Your task to perform on an android device: Open sound settings Image 0: 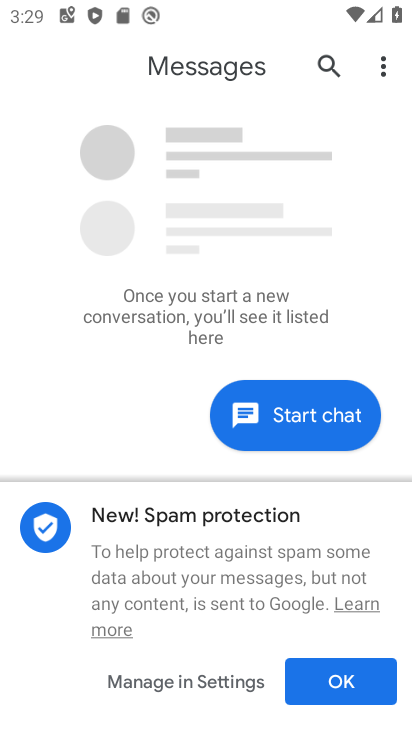
Step 0: press home button
Your task to perform on an android device: Open sound settings Image 1: 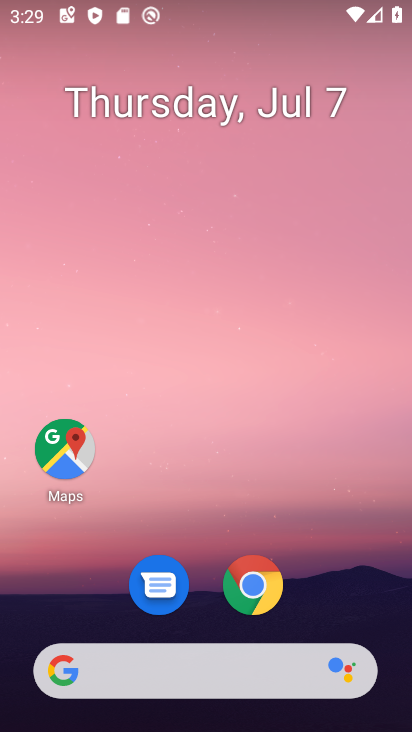
Step 1: drag from (184, 498) to (193, 22)
Your task to perform on an android device: Open sound settings Image 2: 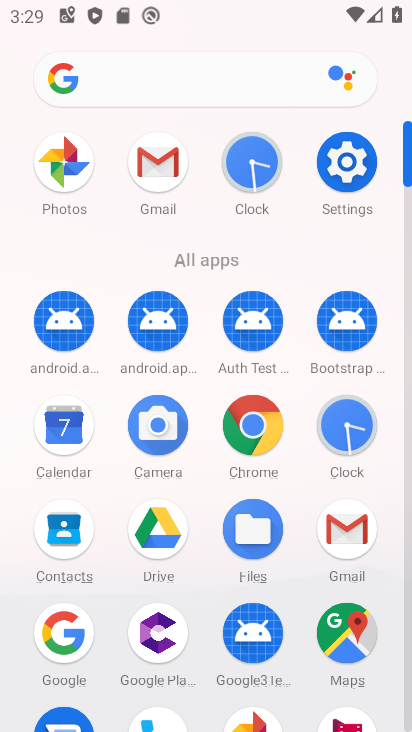
Step 2: click (344, 157)
Your task to perform on an android device: Open sound settings Image 3: 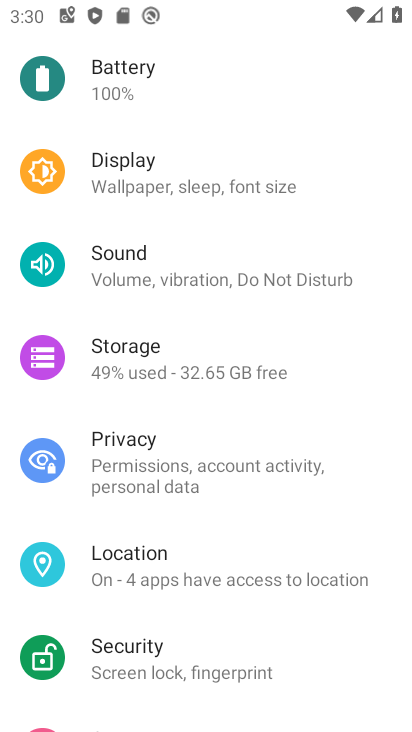
Step 3: click (207, 278)
Your task to perform on an android device: Open sound settings Image 4: 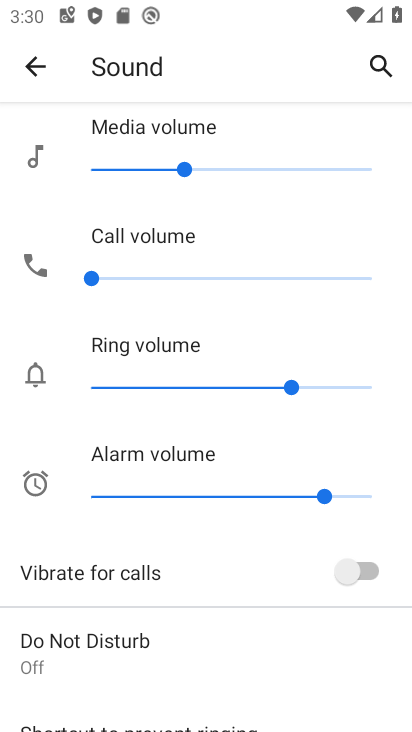
Step 4: task complete